Your task to perform on an android device: choose inbox layout in the gmail app Image 0: 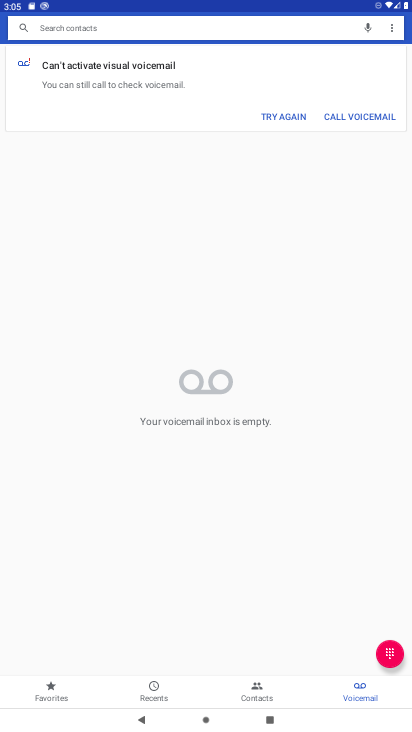
Step 0: press home button
Your task to perform on an android device: choose inbox layout in the gmail app Image 1: 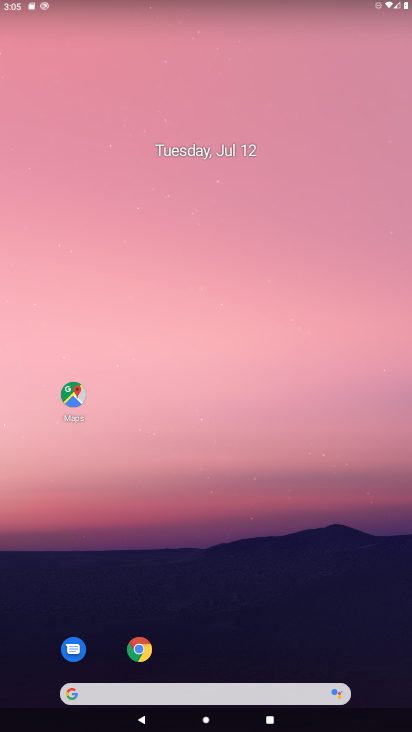
Step 1: drag from (266, 629) to (246, 251)
Your task to perform on an android device: choose inbox layout in the gmail app Image 2: 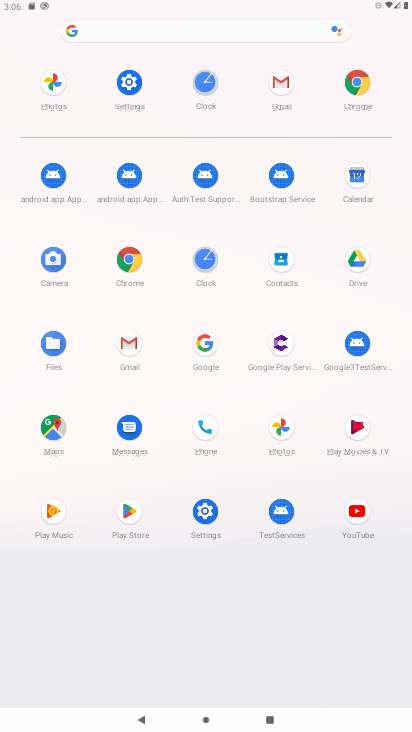
Step 2: click (276, 84)
Your task to perform on an android device: choose inbox layout in the gmail app Image 3: 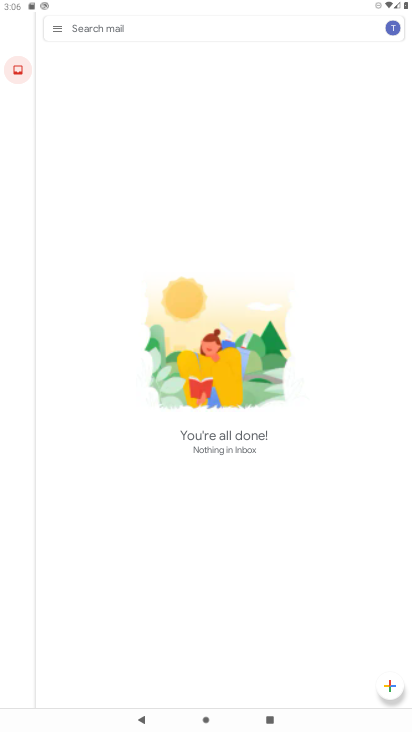
Step 3: click (60, 26)
Your task to perform on an android device: choose inbox layout in the gmail app Image 4: 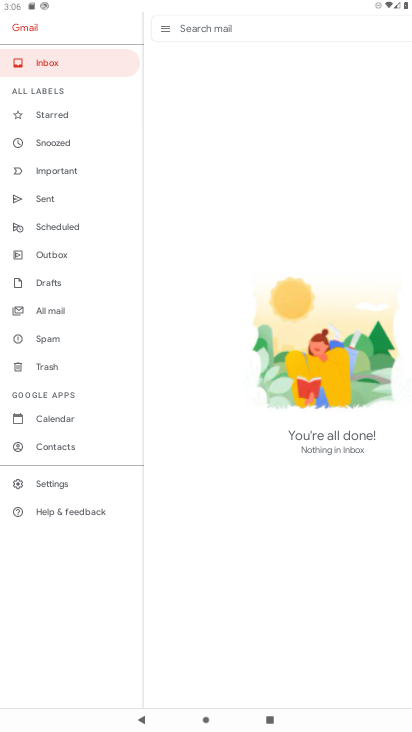
Step 4: click (58, 472)
Your task to perform on an android device: choose inbox layout in the gmail app Image 5: 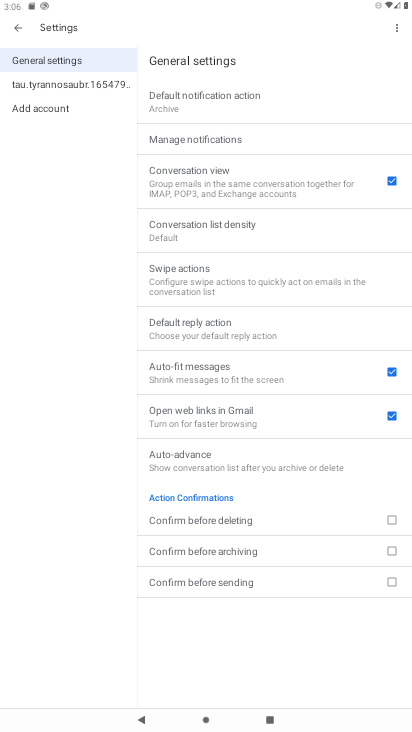
Step 5: click (70, 84)
Your task to perform on an android device: choose inbox layout in the gmail app Image 6: 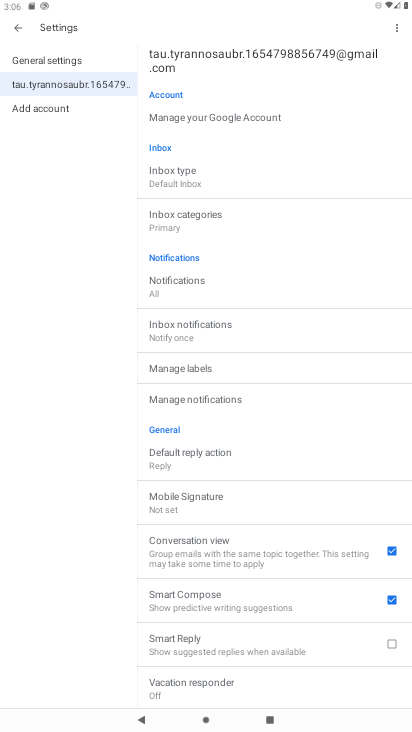
Step 6: click (205, 211)
Your task to perform on an android device: choose inbox layout in the gmail app Image 7: 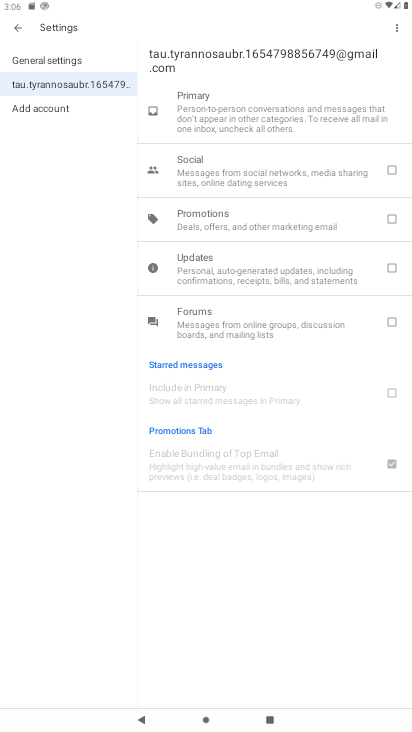
Step 7: click (193, 108)
Your task to perform on an android device: choose inbox layout in the gmail app Image 8: 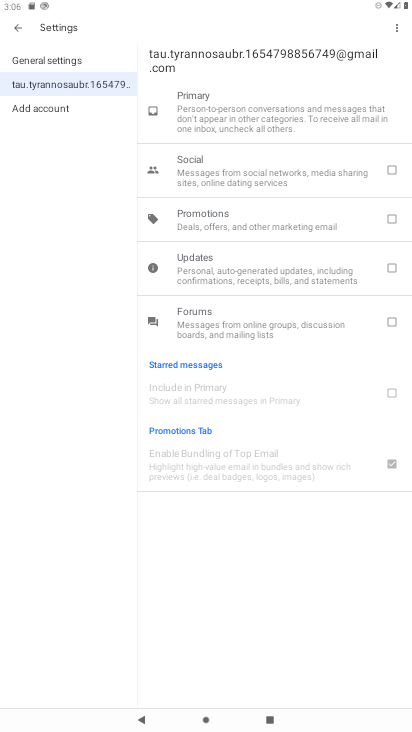
Step 8: task complete